Your task to perform on an android device: Check the settings for the Google Photos app Image 0: 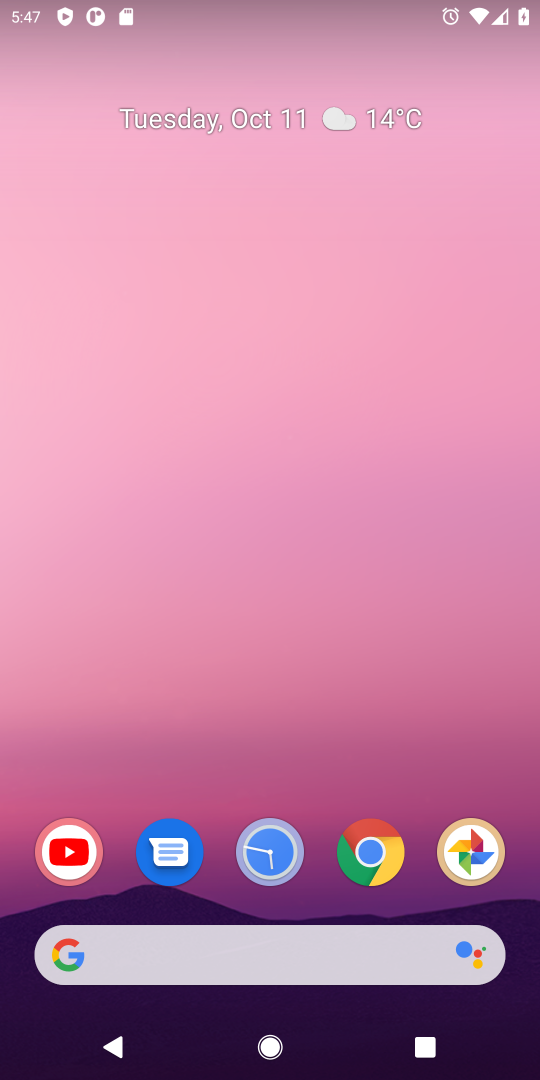
Step 0: drag from (437, 809) to (350, 235)
Your task to perform on an android device: Check the settings for the Google Photos app Image 1: 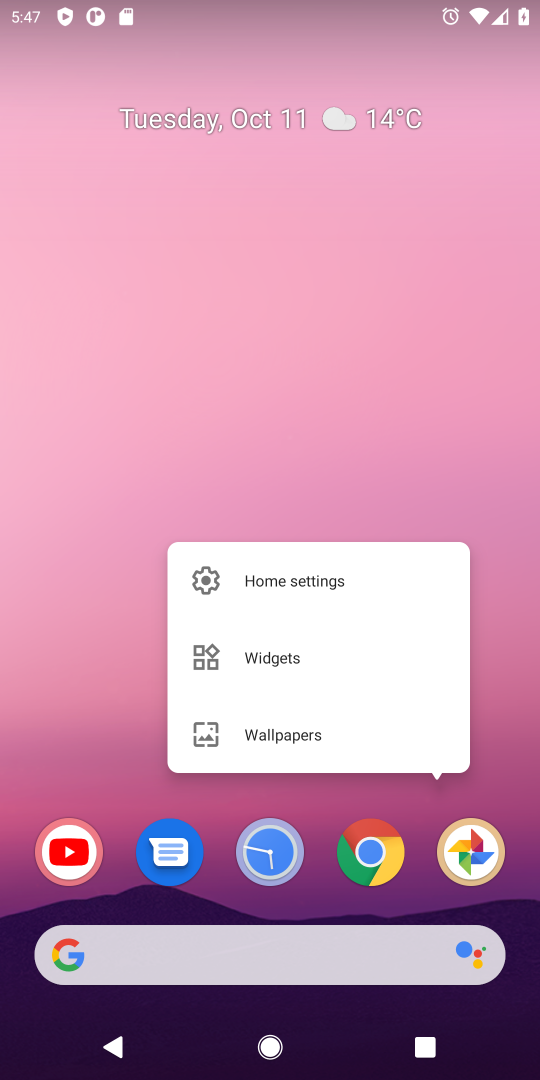
Step 1: click (382, 321)
Your task to perform on an android device: Check the settings for the Google Photos app Image 2: 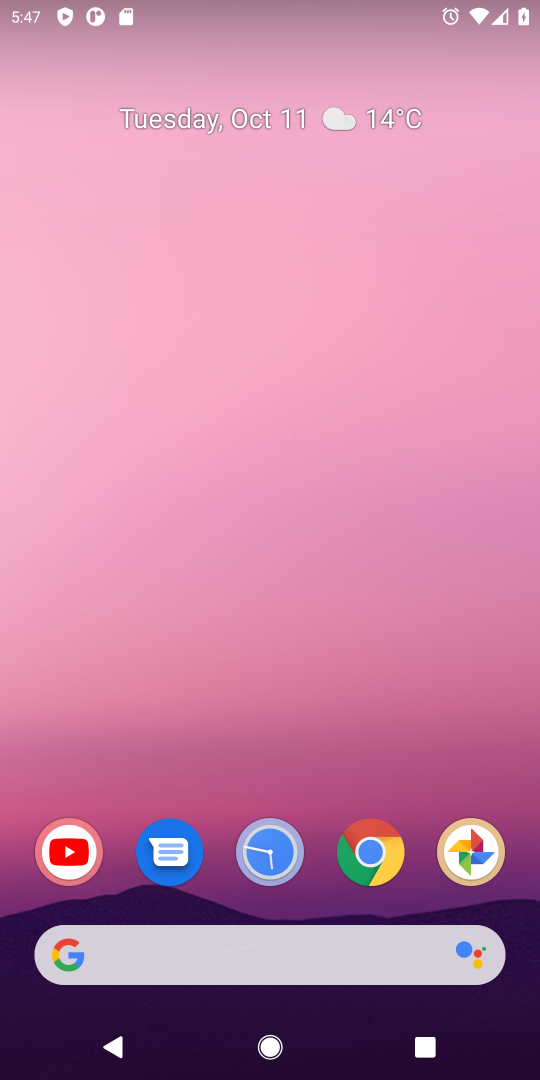
Step 2: drag from (417, 785) to (399, 373)
Your task to perform on an android device: Check the settings for the Google Photos app Image 3: 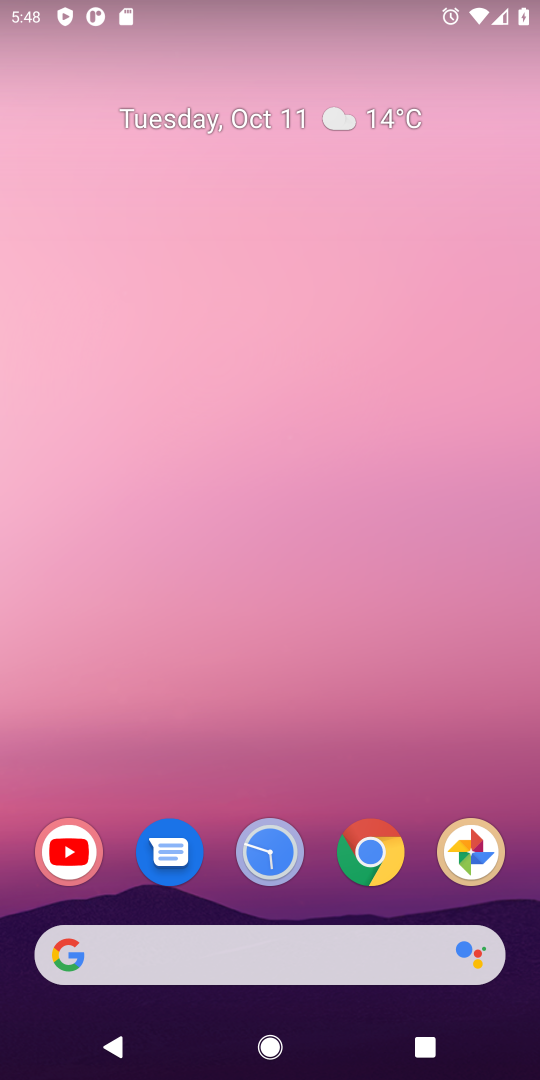
Step 3: click (472, 862)
Your task to perform on an android device: Check the settings for the Google Photos app Image 4: 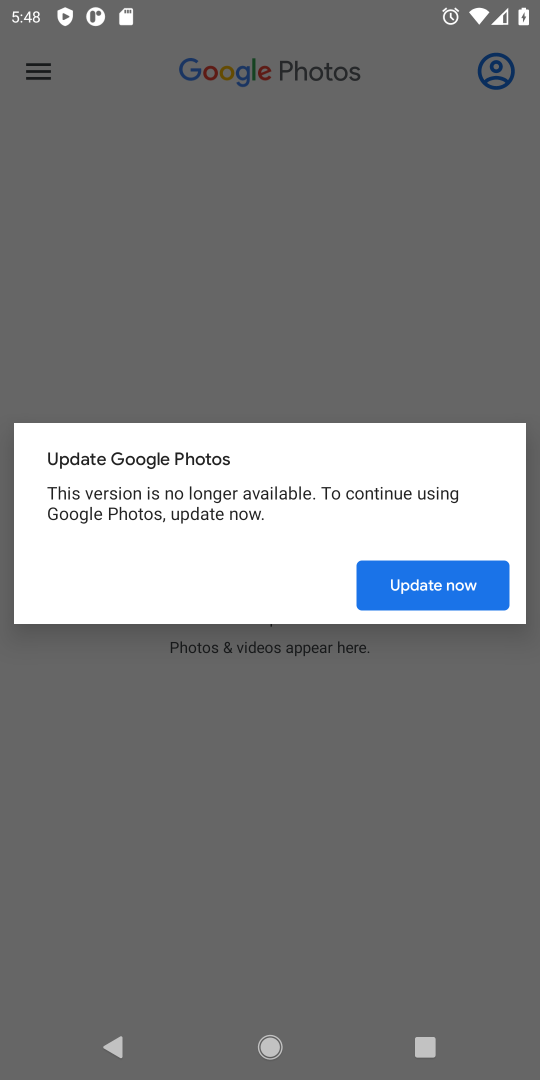
Step 4: click (437, 658)
Your task to perform on an android device: Check the settings for the Google Photos app Image 5: 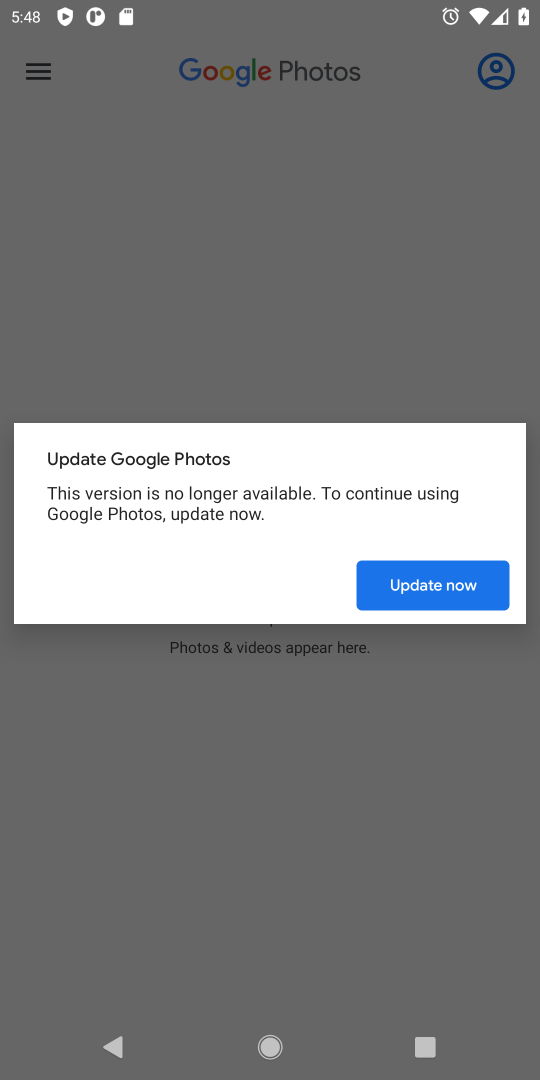
Step 5: click (471, 780)
Your task to perform on an android device: Check the settings for the Google Photos app Image 6: 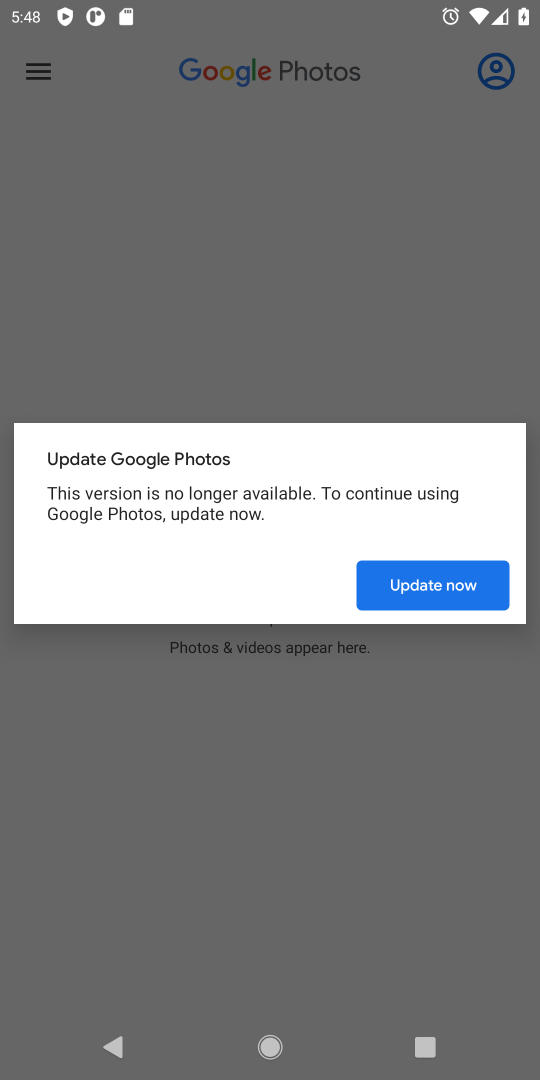
Step 6: click (319, 398)
Your task to perform on an android device: Check the settings for the Google Photos app Image 7: 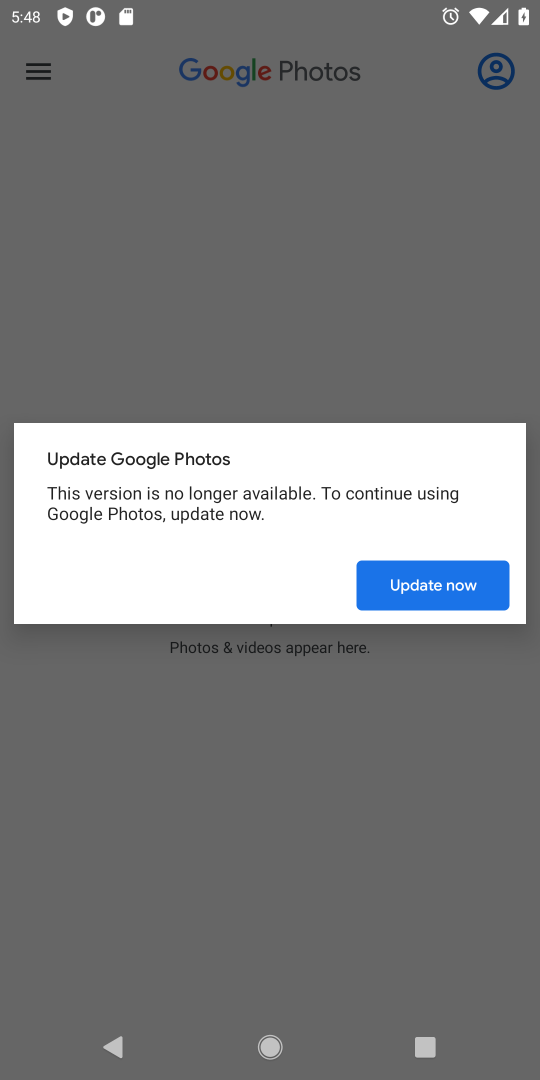
Step 7: click (268, 378)
Your task to perform on an android device: Check the settings for the Google Photos app Image 8: 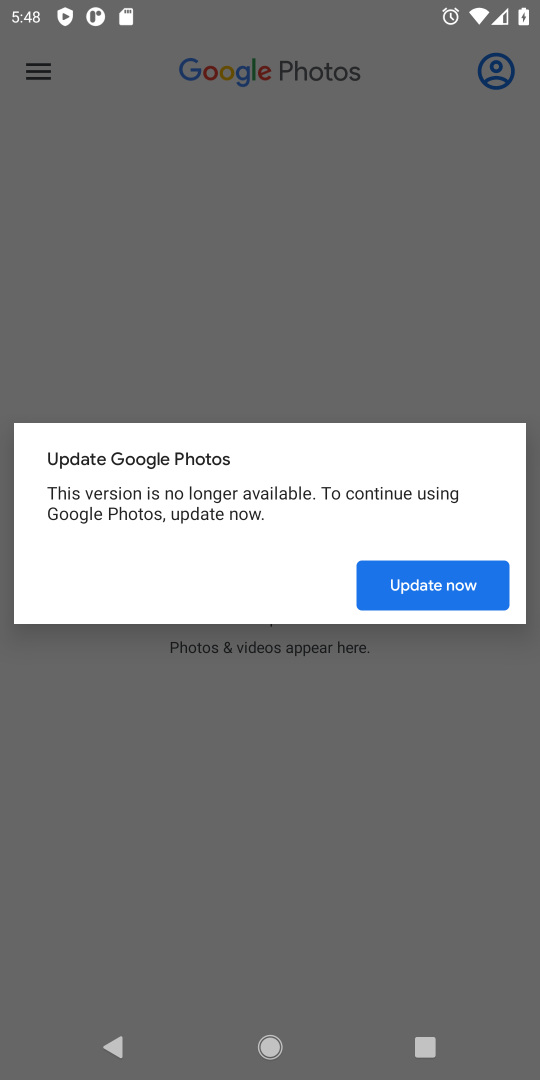
Step 8: click (479, 583)
Your task to perform on an android device: Check the settings for the Google Photos app Image 9: 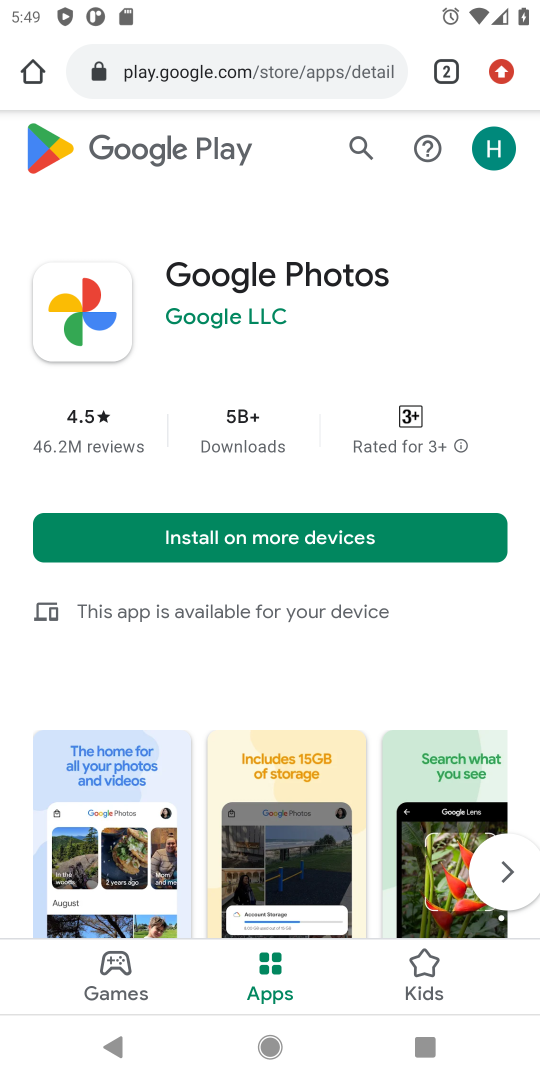
Step 9: task complete